Your task to perform on an android device: What's the weather today? Image 0: 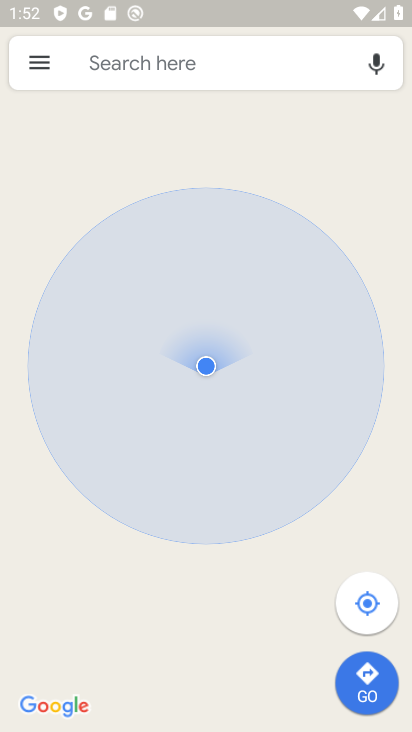
Step 0: press home button
Your task to perform on an android device: What's the weather today? Image 1: 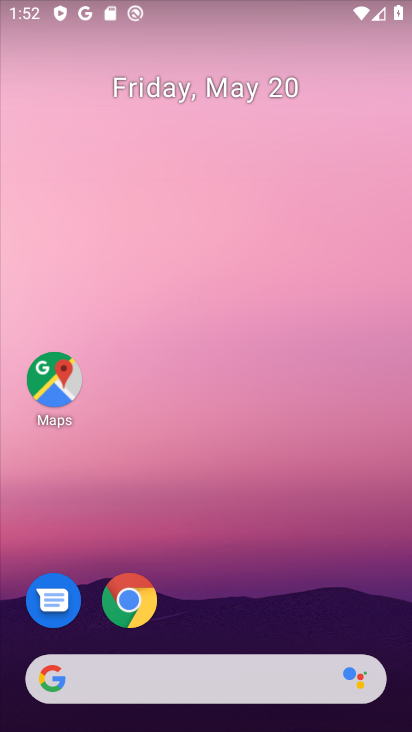
Step 1: drag from (286, 571) to (387, 123)
Your task to perform on an android device: What's the weather today? Image 2: 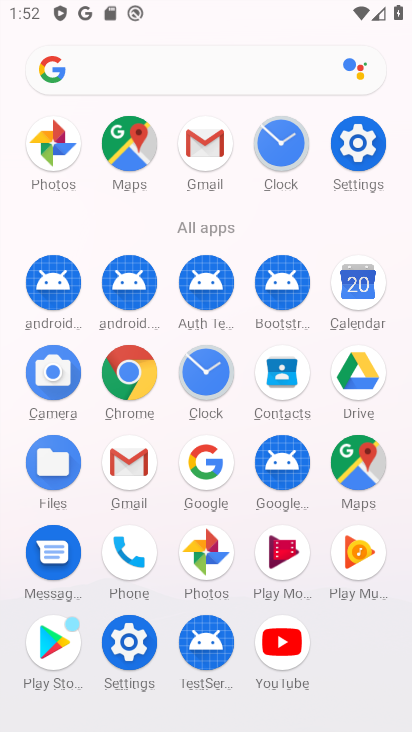
Step 2: drag from (191, 555) to (219, 304)
Your task to perform on an android device: What's the weather today? Image 3: 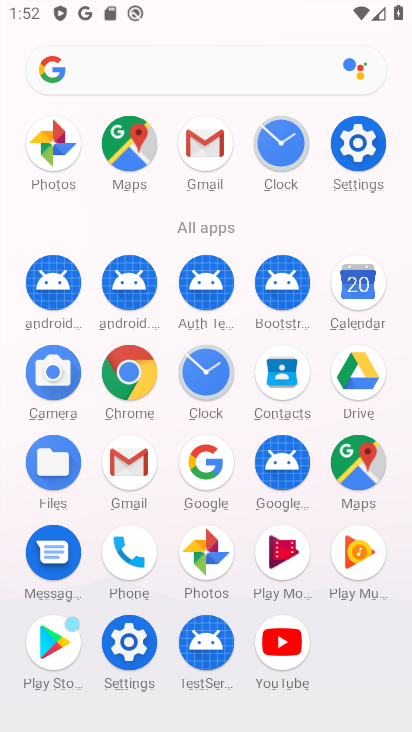
Step 3: click (214, 477)
Your task to perform on an android device: What's the weather today? Image 4: 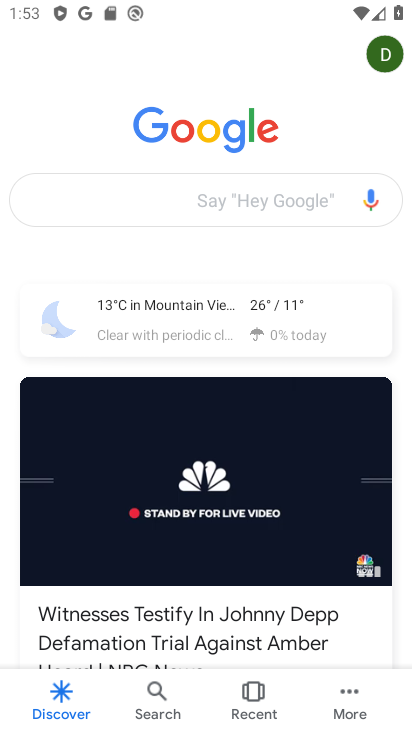
Step 4: click (227, 201)
Your task to perform on an android device: What's the weather today? Image 5: 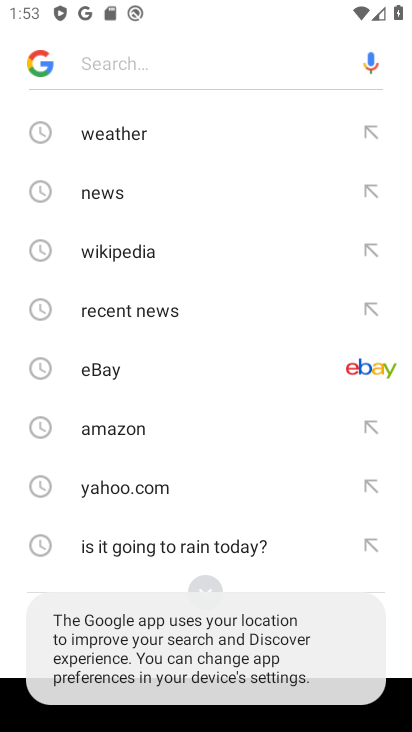
Step 5: click (171, 127)
Your task to perform on an android device: What's the weather today? Image 6: 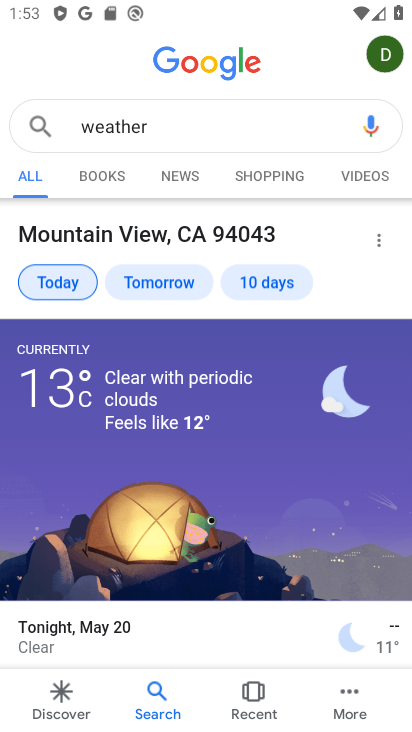
Step 6: task complete